Your task to perform on an android device: turn on improve location accuracy Image 0: 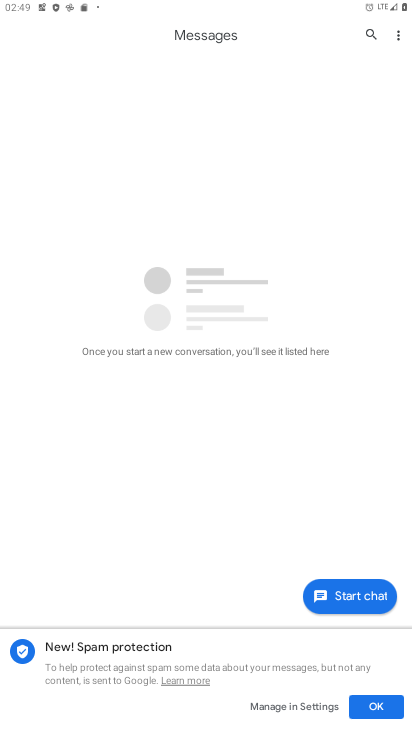
Step 0: press home button
Your task to perform on an android device: turn on improve location accuracy Image 1: 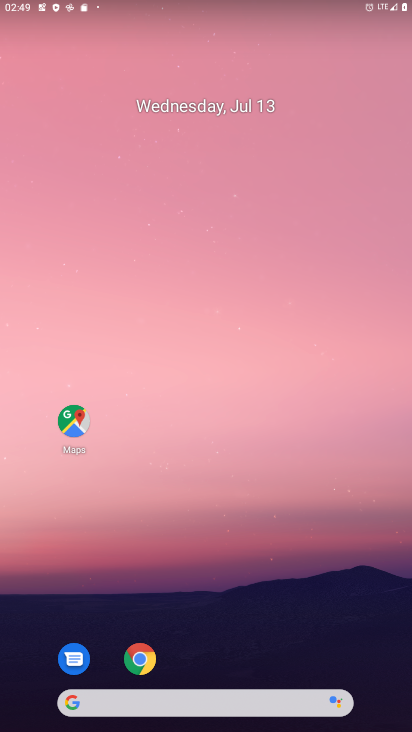
Step 1: drag from (232, 691) to (221, 99)
Your task to perform on an android device: turn on improve location accuracy Image 2: 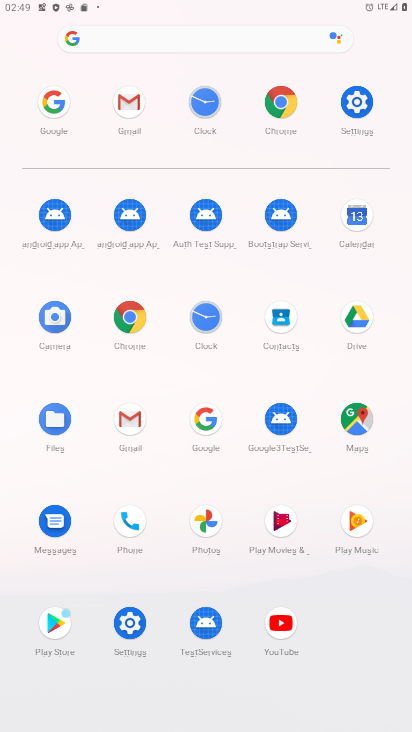
Step 2: click (360, 113)
Your task to perform on an android device: turn on improve location accuracy Image 3: 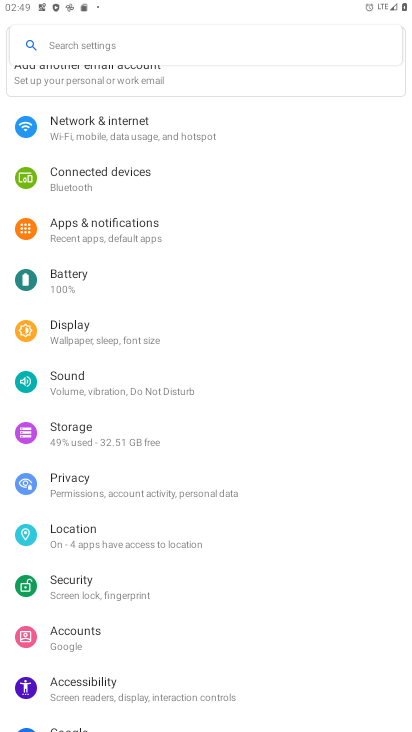
Step 3: click (84, 537)
Your task to perform on an android device: turn on improve location accuracy Image 4: 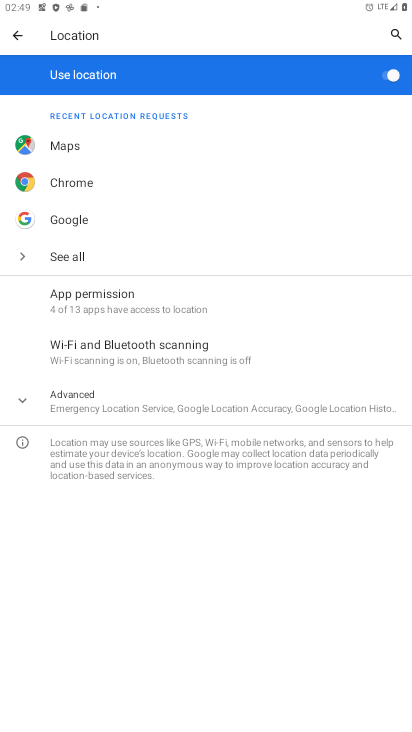
Step 4: click (82, 397)
Your task to perform on an android device: turn on improve location accuracy Image 5: 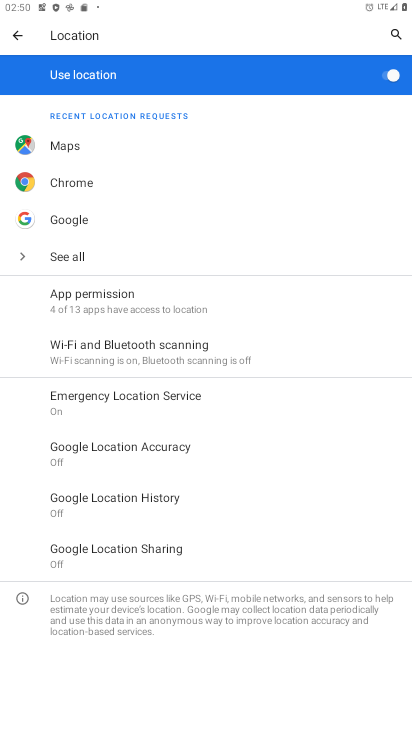
Step 5: click (121, 445)
Your task to perform on an android device: turn on improve location accuracy Image 6: 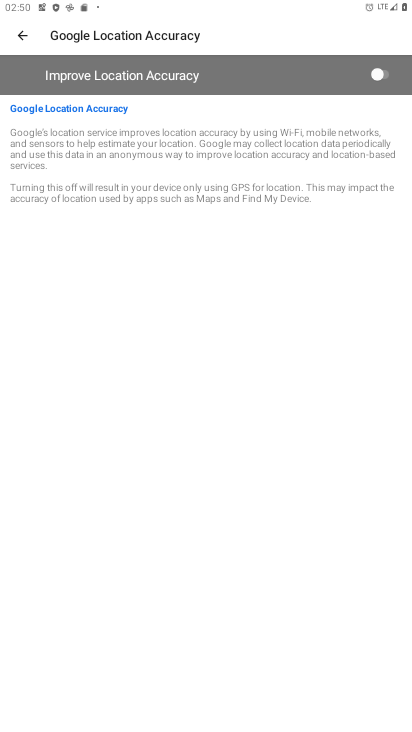
Step 6: click (384, 69)
Your task to perform on an android device: turn on improve location accuracy Image 7: 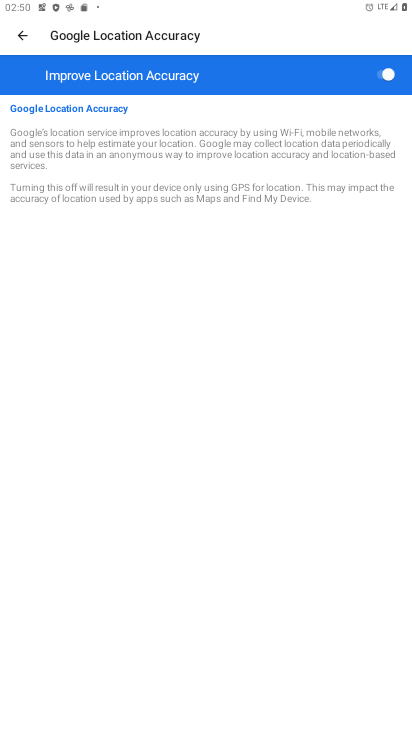
Step 7: task complete